Your task to perform on an android device: Set the phone to "Do not disturb". Image 0: 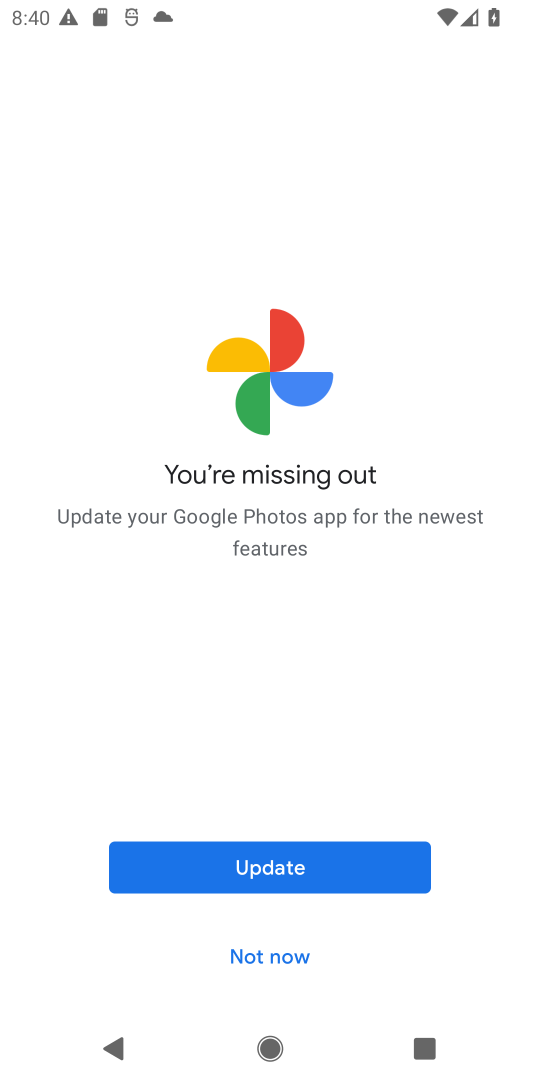
Step 0: press home button
Your task to perform on an android device: Set the phone to "Do not disturb". Image 1: 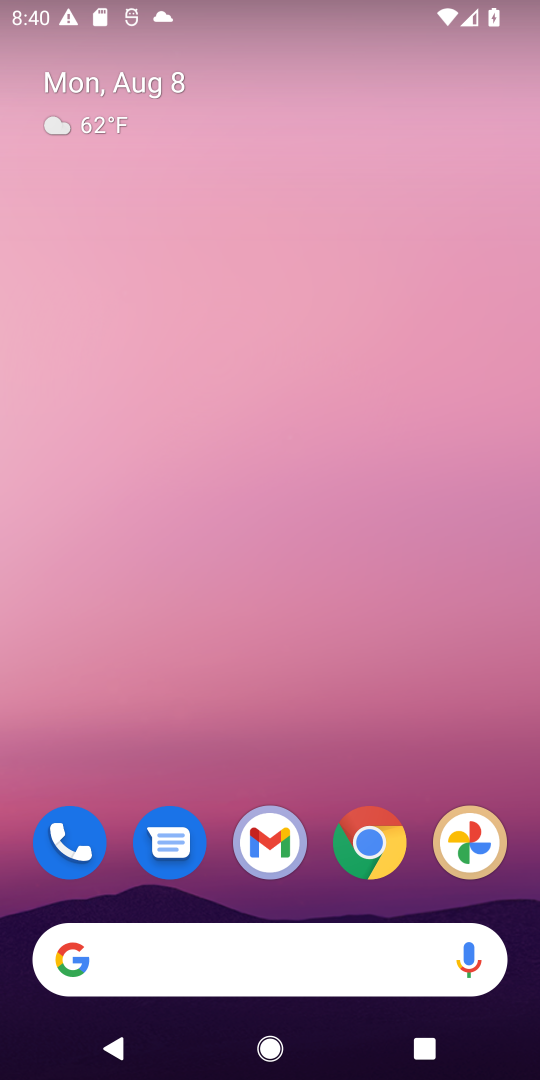
Step 1: drag from (405, 210) to (415, 30)
Your task to perform on an android device: Set the phone to "Do not disturb". Image 2: 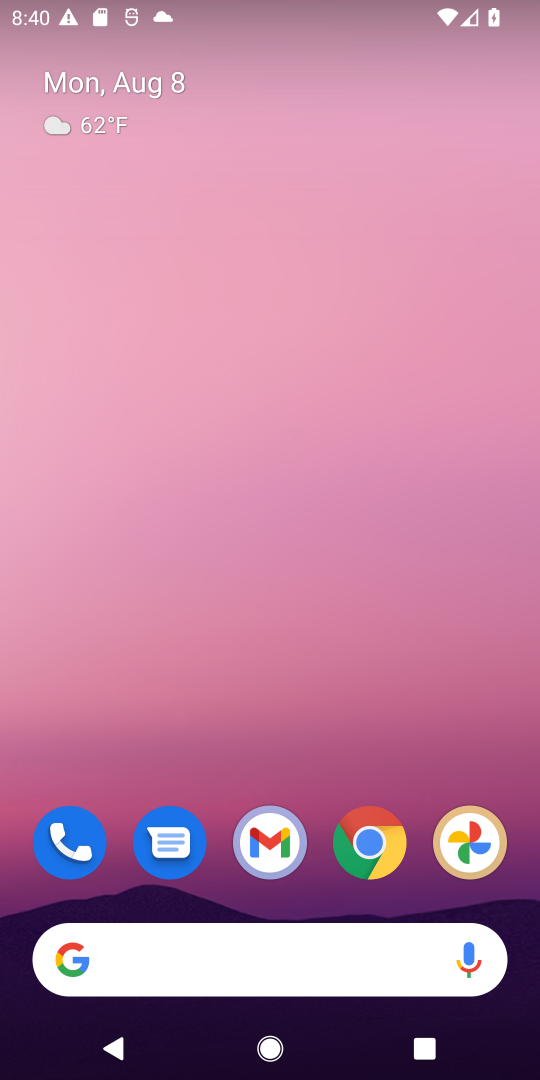
Step 2: drag from (299, 752) to (320, 0)
Your task to perform on an android device: Set the phone to "Do not disturb". Image 3: 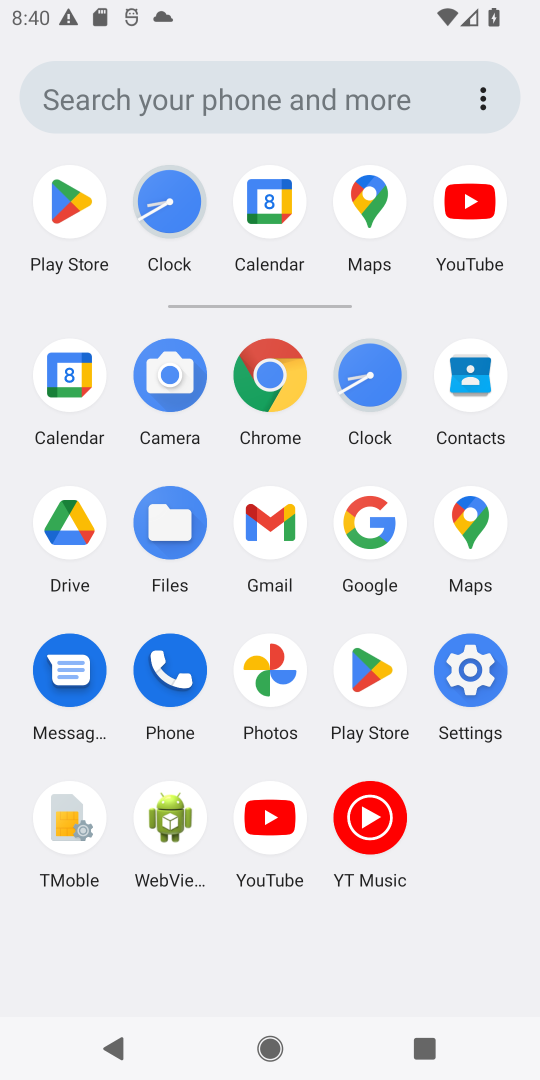
Step 3: click (471, 672)
Your task to perform on an android device: Set the phone to "Do not disturb". Image 4: 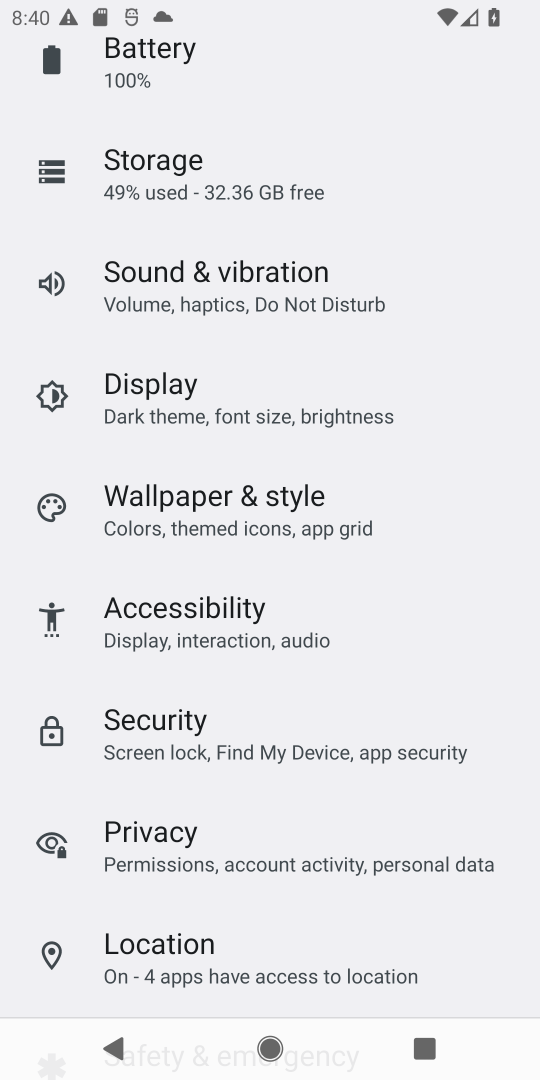
Step 4: click (281, 291)
Your task to perform on an android device: Set the phone to "Do not disturb". Image 5: 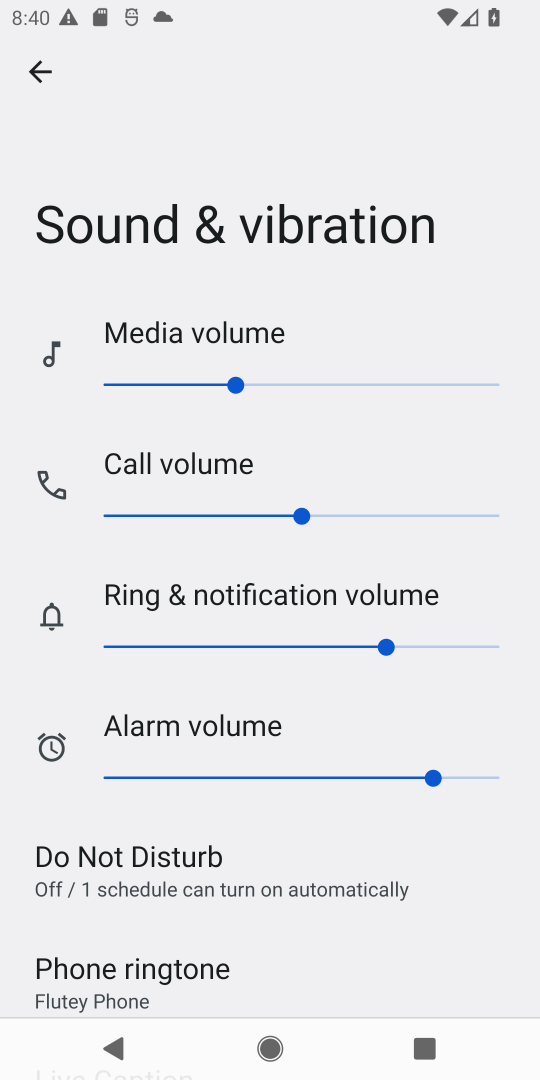
Step 5: click (294, 866)
Your task to perform on an android device: Set the phone to "Do not disturb". Image 6: 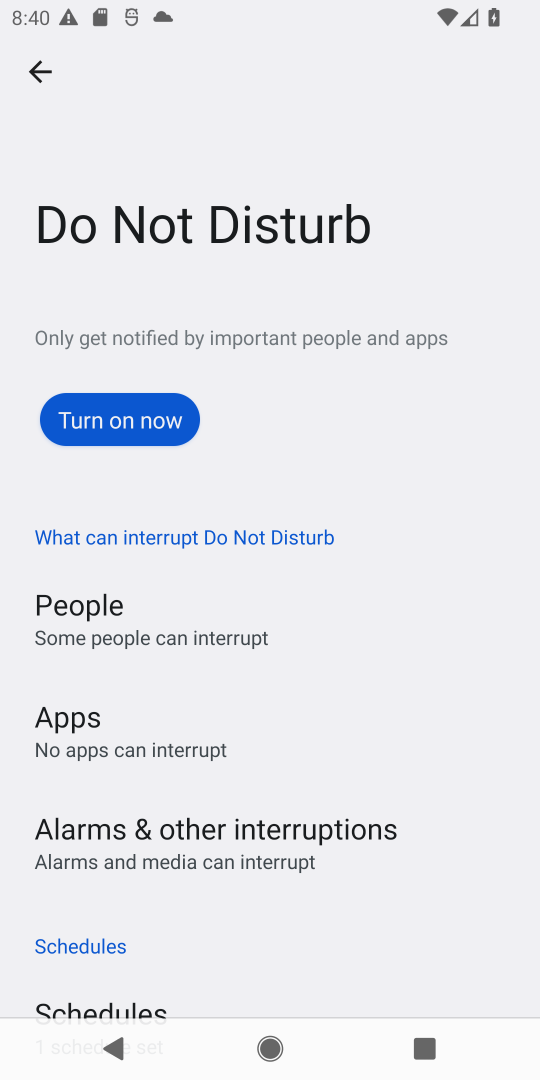
Step 6: click (178, 430)
Your task to perform on an android device: Set the phone to "Do not disturb". Image 7: 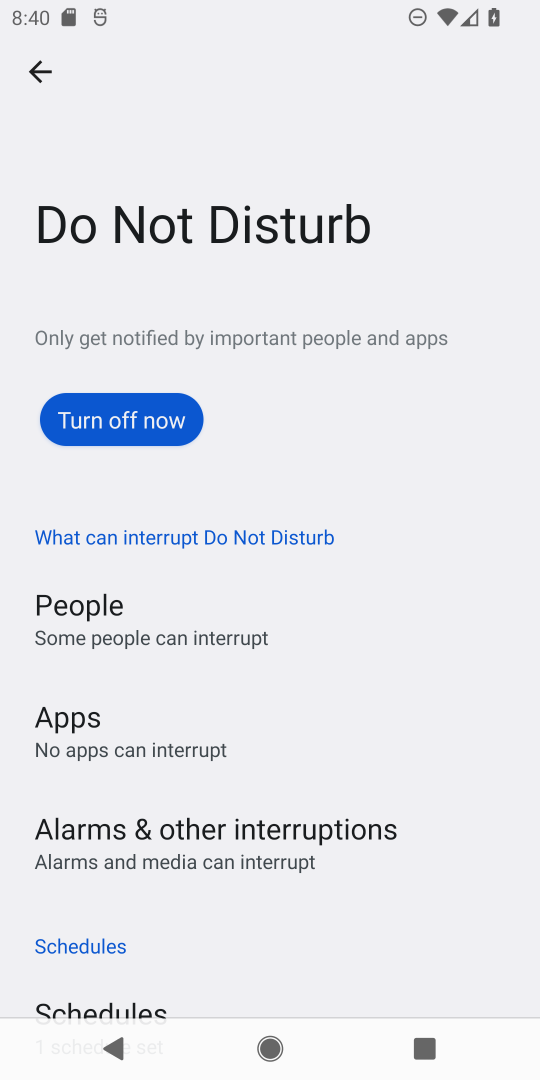
Step 7: click (178, 430)
Your task to perform on an android device: Set the phone to "Do not disturb". Image 8: 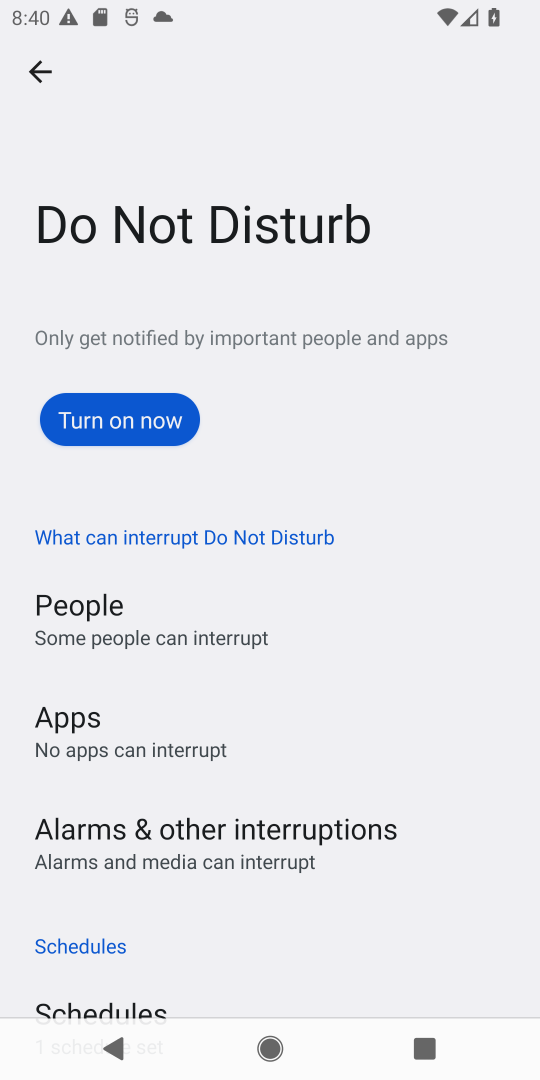
Step 8: click (190, 420)
Your task to perform on an android device: Set the phone to "Do not disturb". Image 9: 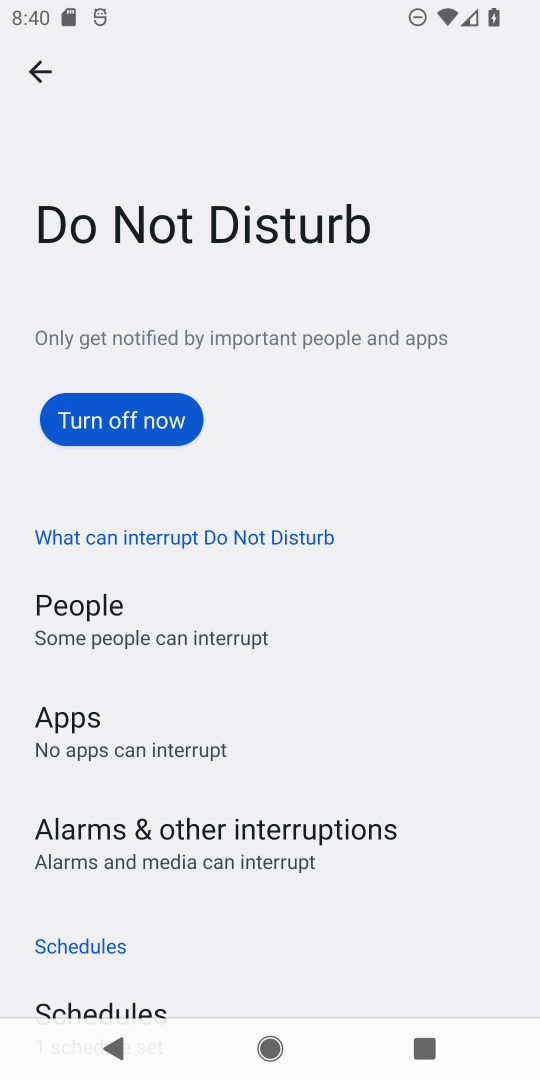
Step 9: task complete